Your task to perform on an android device: Open calendar and show me the second week of next month Image 0: 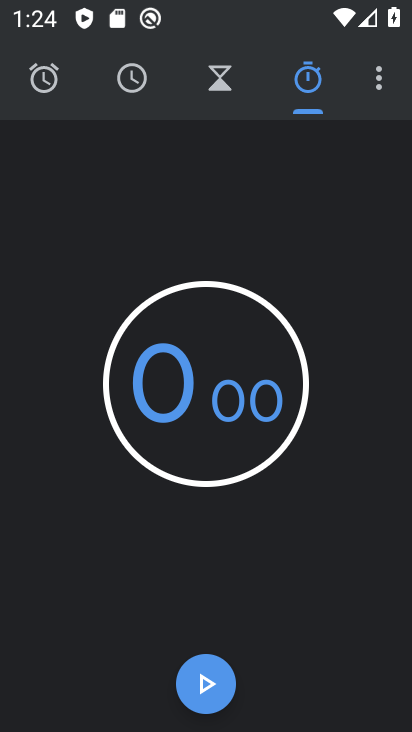
Step 0: press home button
Your task to perform on an android device: Open calendar and show me the second week of next month Image 1: 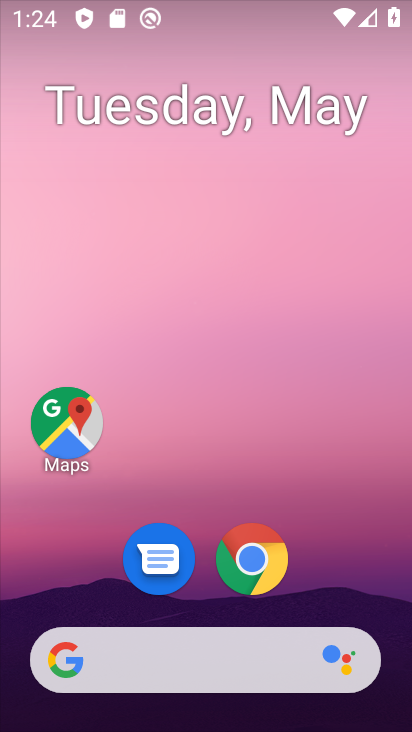
Step 1: drag from (389, 626) to (323, 60)
Your task to perform on an android device: Open calendar and show me the second week of next month Image 2: 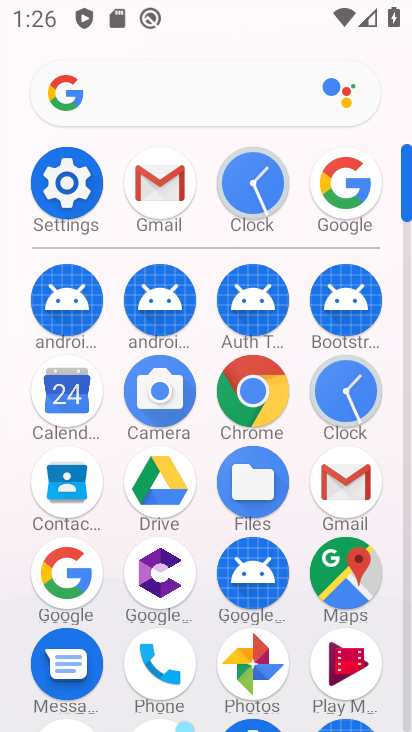
Step 2: click (67, 397)
Your task to perform on an android device: Open calendar and show me the second week of next month Image 3: 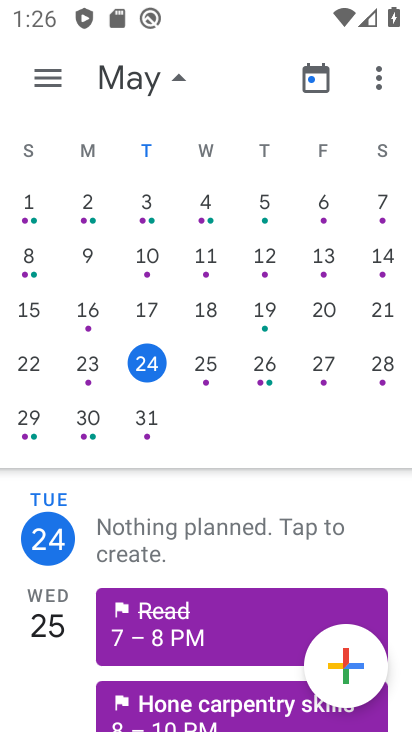
Step 3: drag from (364, 297) to (16, 263)
Your task to perform on an android device: Open calendar and show me the second week of next month Image 4: 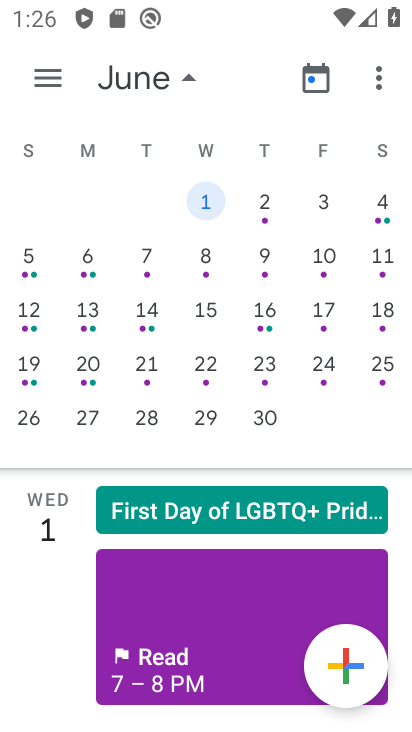
Step 4: click (134, 317)
Your task to perform on an android device: Open calendar and show me the second week of next month Image 5: 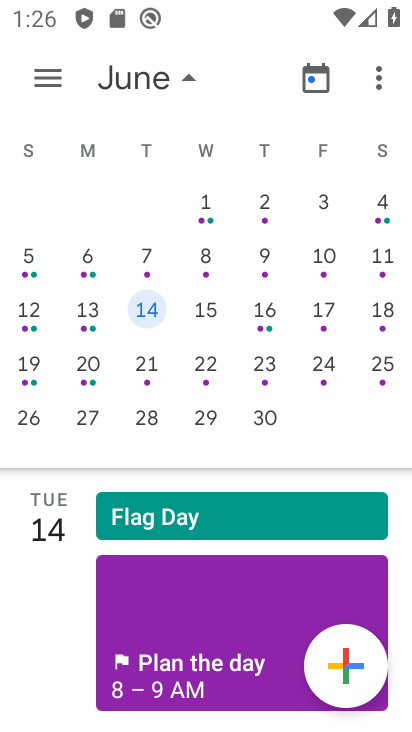
Step 5: task complete